Your task to perform on an android device: change timer sound Image 0: 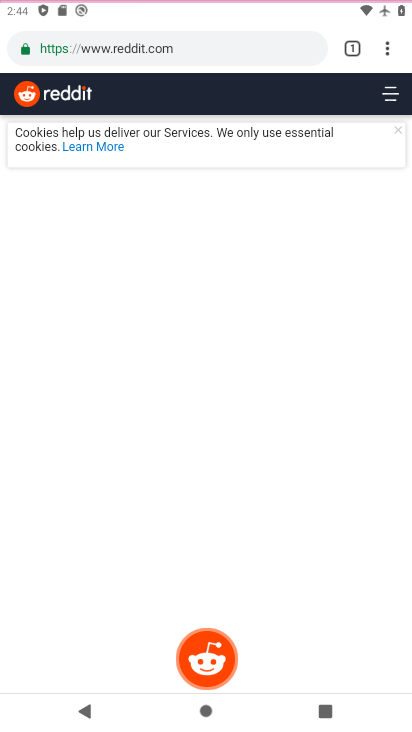
Step 0: press home button
Your task to perform on an android device: change timer sound Image 1: 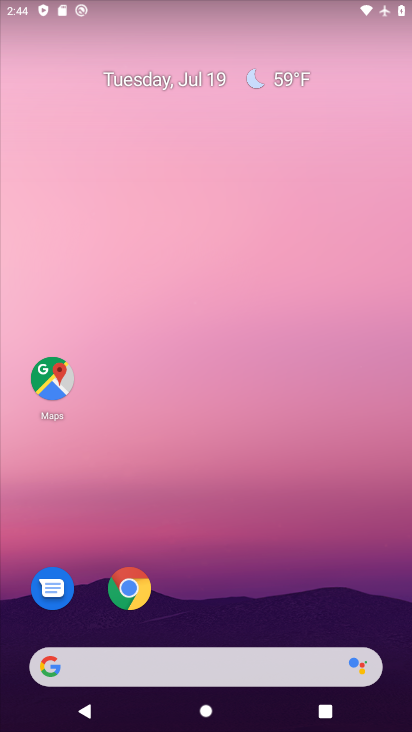
Step 1: drag from (270, 625) to (265, 158)
Your task to perform on an android device: change timer sound Image 2: 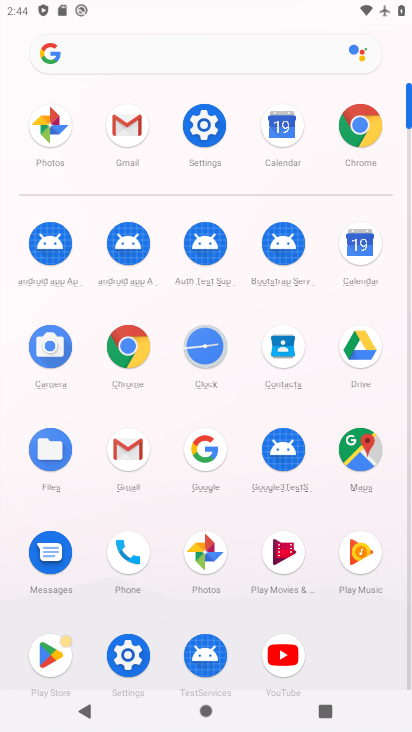
Step 2: click (203, 356)
Your task to perform on an android device: change timer sound Image 3: 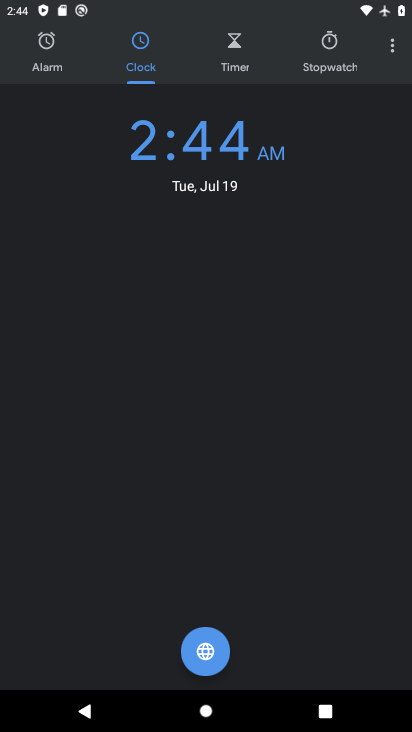
Step 3: click (399, 46)
Your task to perform on an android device: change timer sound Image 4: 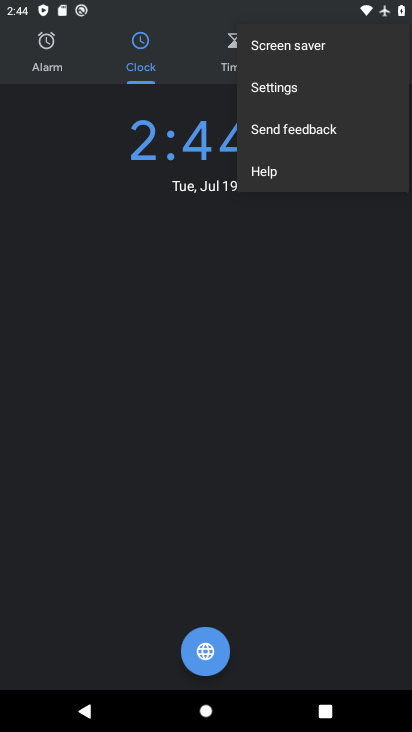
Step 4: click (281, 95)
Your task to perform on an android device: change timer sound Image 5: 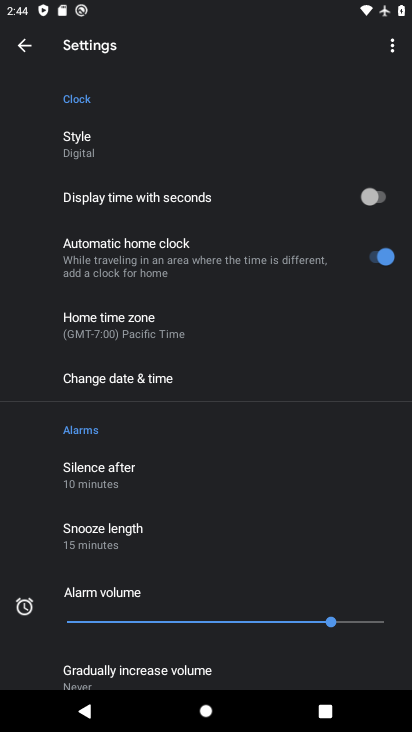
Step 5: drag from (252, 516) to (265, 192)
Your task to perform on an android device: change timer sound Image 6: 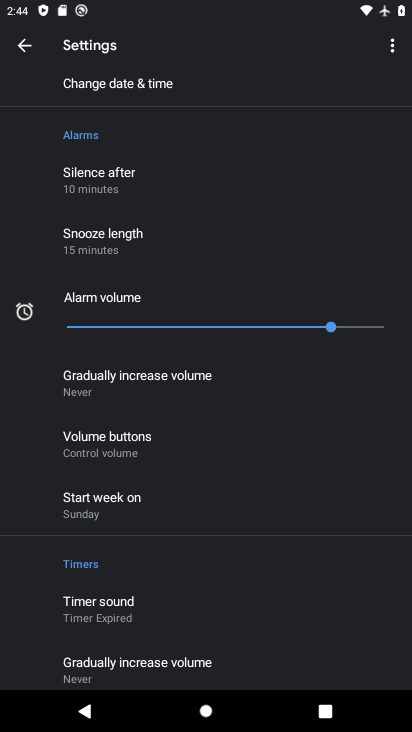
Step 6: click (86, 609)
Your task to perform on an android device: change timer sound Image 7: 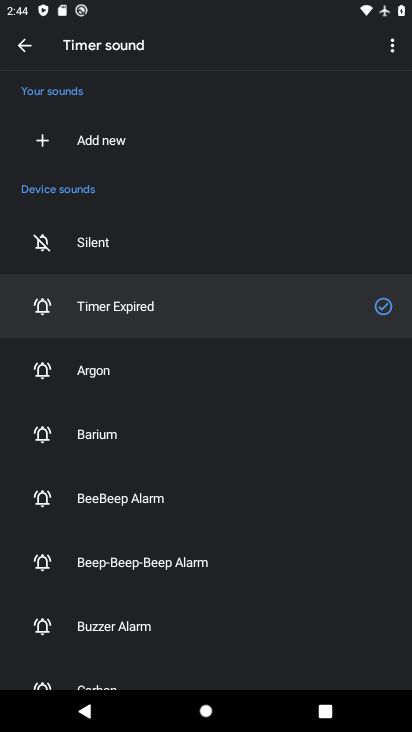
Step 7: click (104, 434)
Your task to perform on an android device: change timer sound Image 8: 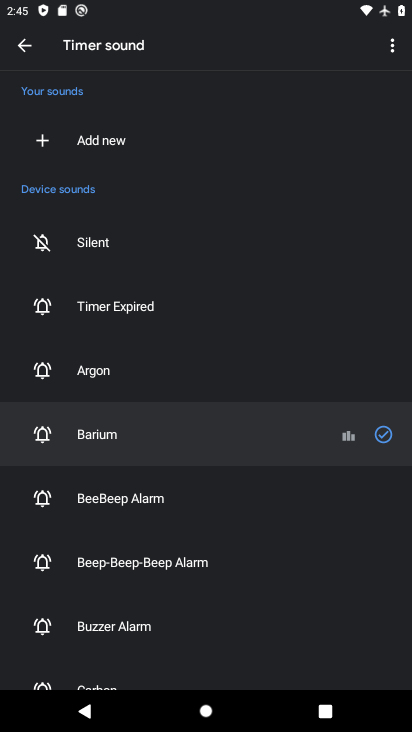
Step 8: task complete